Your task to perform on an android device: Open the calendar and show me this week's events? Image 0: 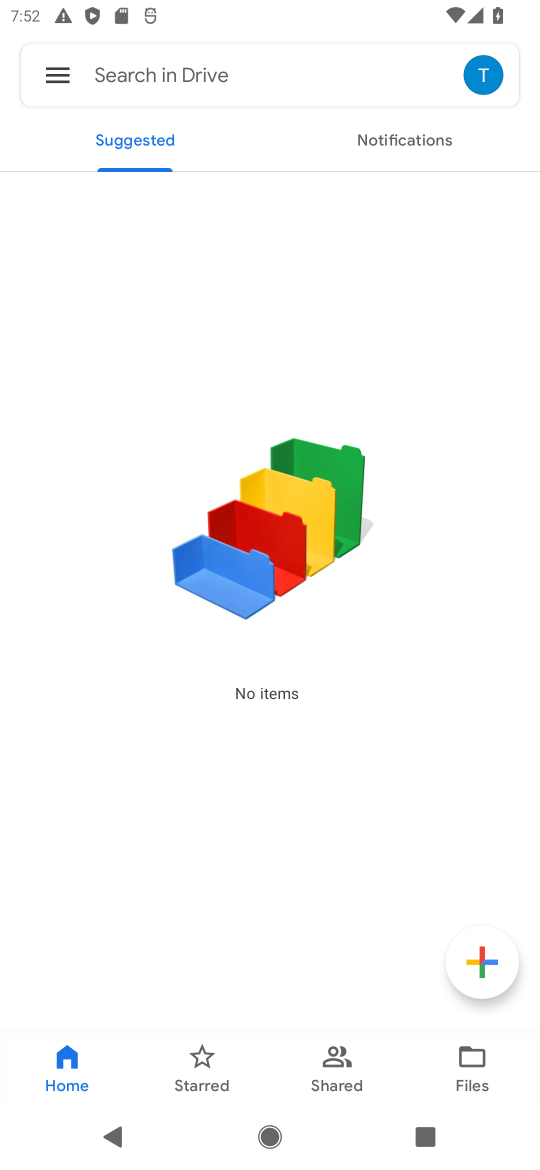
Step 0: press home button
Your task to perform on an android device: Open the calendar and show me this week's events? Image 1: 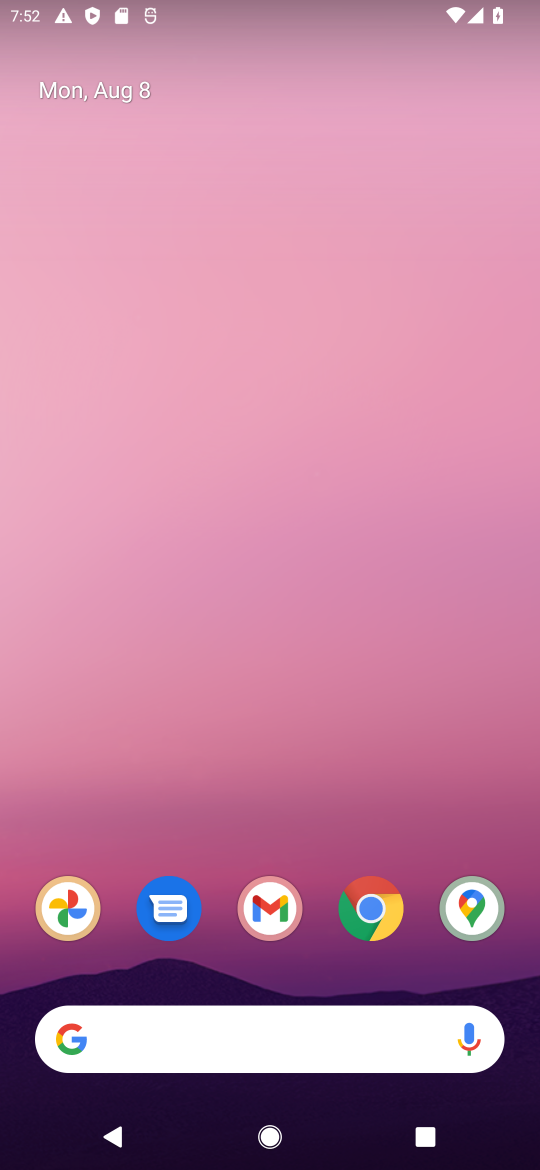
Step 1: click (56, 89)
Your task to perform on an android device: Open the calendar and show me this week's events? Image 2: 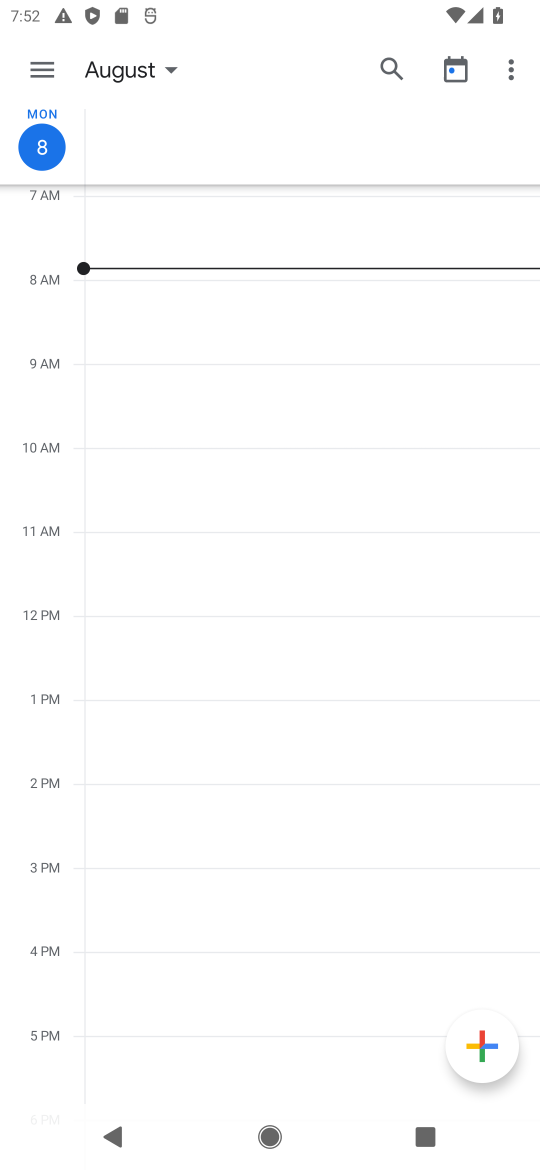
Step 2: click (104, 70)
Your task to perform on an android device: Open the calendar and show me this week's events? Image 3: 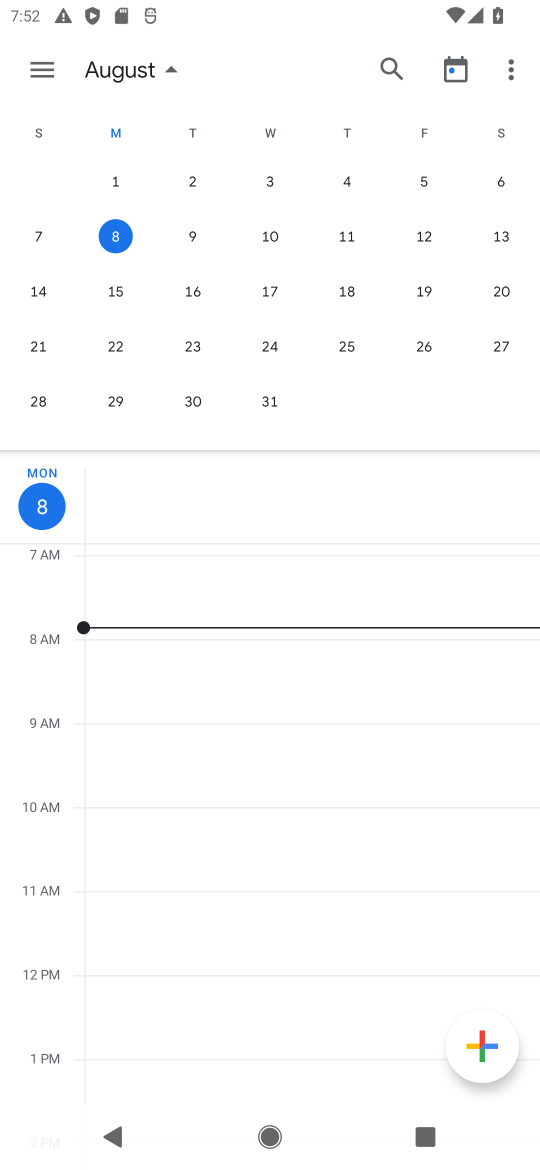
Step 3: task complete